Your task to perform on an android device: change the clock display to analog Image 0: 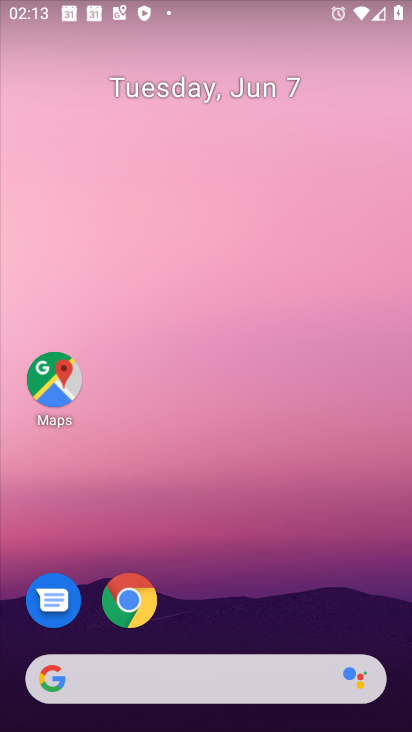
Step 0: drag from (232, 728) to (228, 257)
Your task to perform on an android device: change the clock display to analog Image 1: 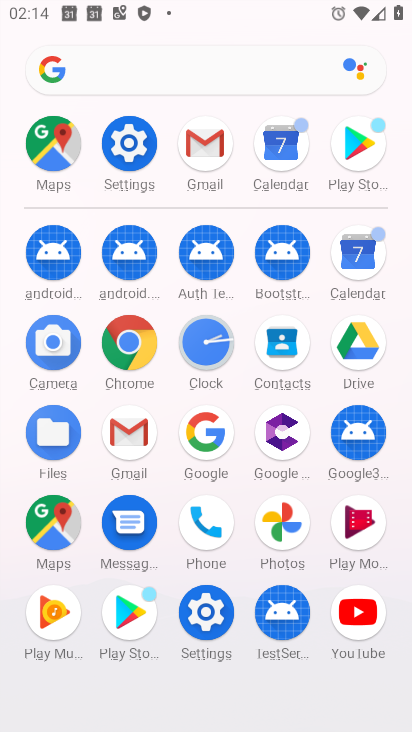
Step 1: click (214, 344)
Your task to perform on an android device: change the clock display to analog Image 2: 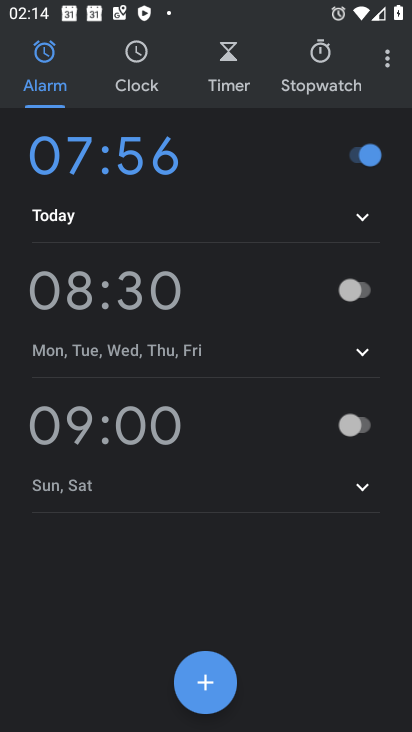
Step 2: click (388, 65)
Your task to perform on an android device: change the clock display to analog Image 3: 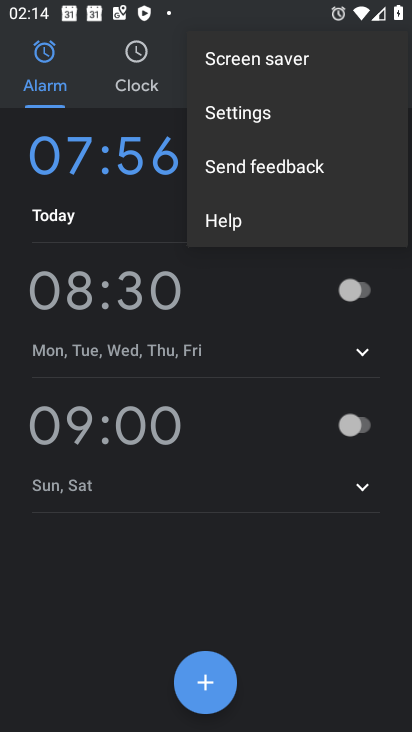
Step 3: click (240, 109)
Your task to perform on an android device: change the clock display to analog Image 4: 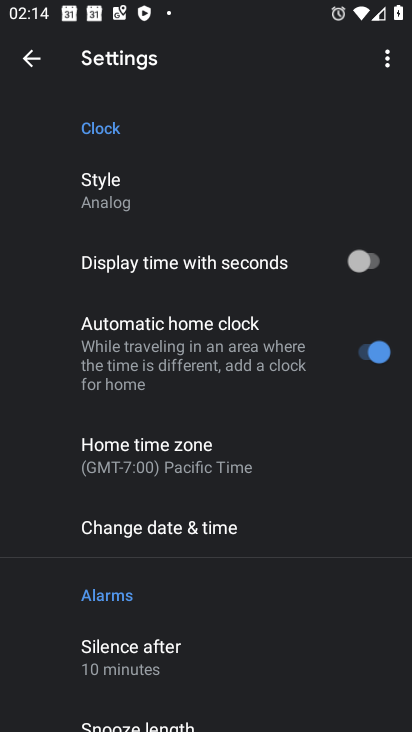
Step 4: task complete